Your task to perform on an android device: check google app version Image 0: 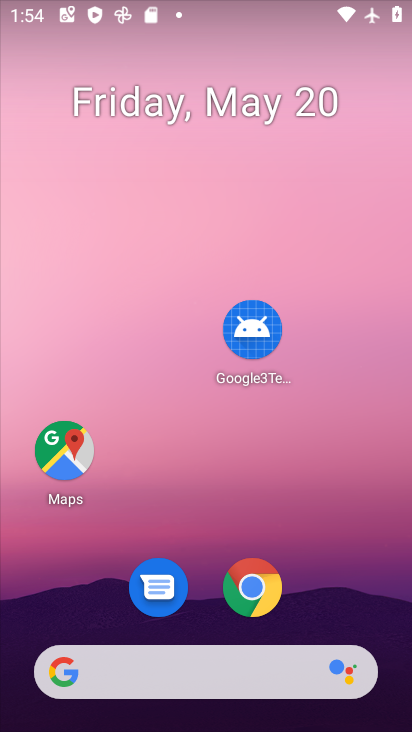
Step 0: drag from (324, 584) to (287, 114)
Your task to perform on an android device: check google app version Image 1: 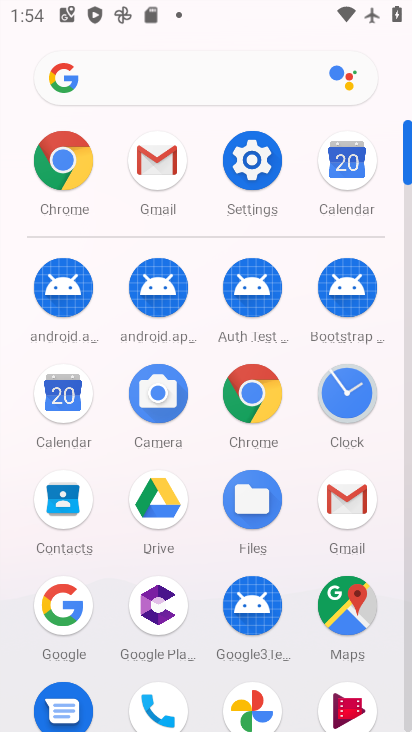
Step 1: click (56, 70)
Your task to perform on an android device: check google app version Image 2: 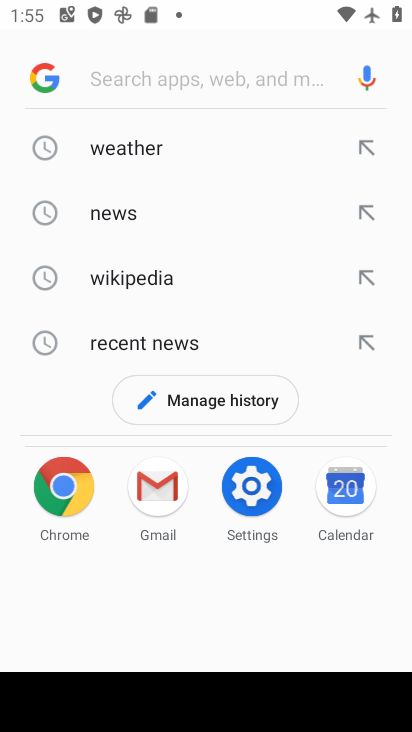
Step 2: click (49, 74)
Your task to perform on an android device: check google app version Image 3: 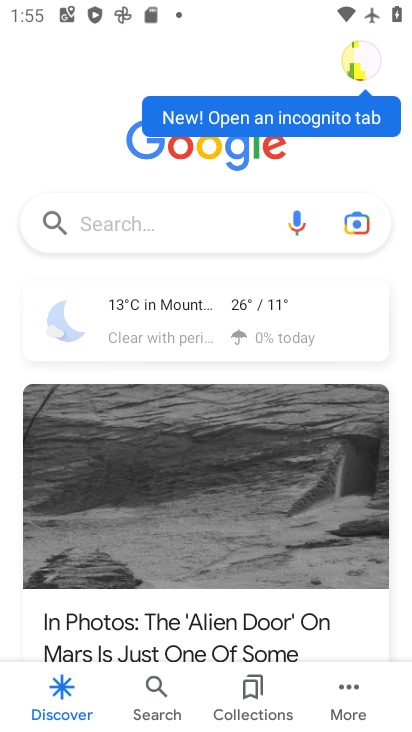
Step 3: click (356, 696)
Your task to perform on an android device: check google app version Image 4: 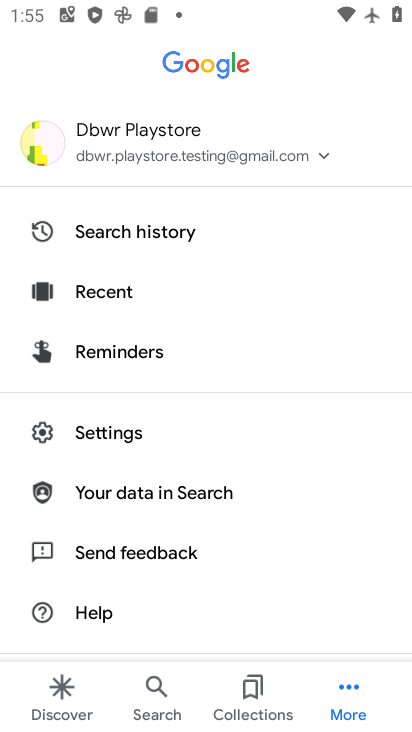
Step 4: click (109, 435)
Your task to perform on an android device: check google app version Image 5: 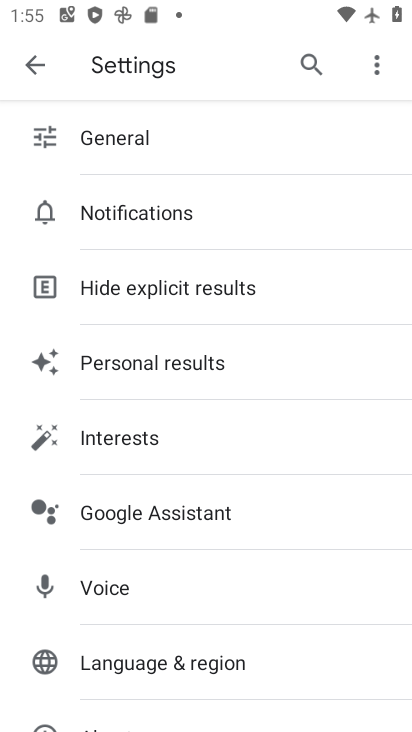
Step 5: drag from (167, 611) to (201, 210)
Your task to perform on an android device: check google app version Image 6: 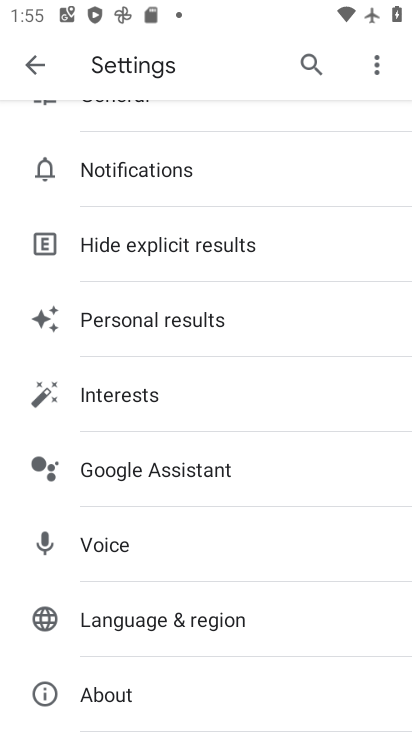
Step 6: click (103, 688)
Your task to perform on an android device: check google app version Image 7: 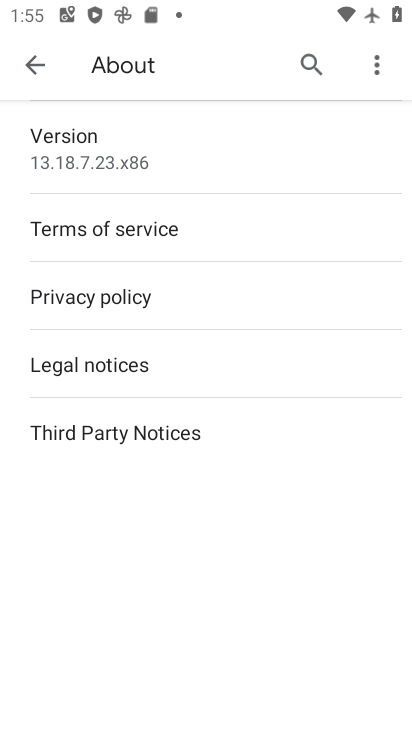
Step 7: task complete